Your task to perform on an android device: open a new tab in the chrome app Image 0: 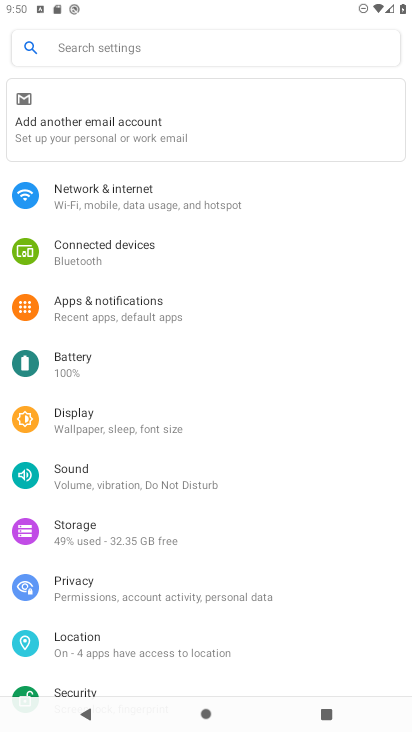
Step 0: press home button
Your task to perform on an android device: open a new tab in the chrome app Image 1: 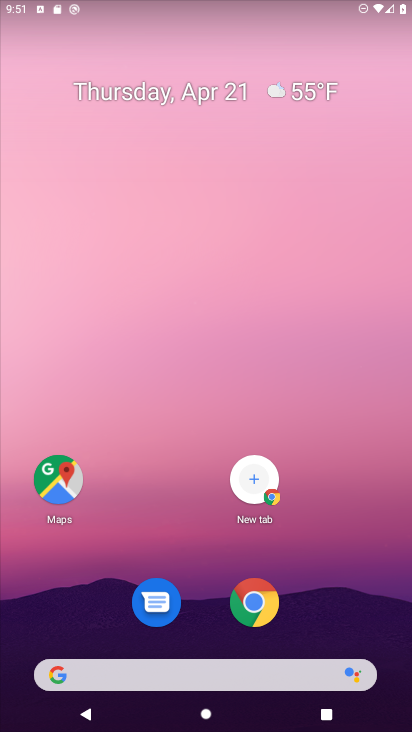
Step 1: click (248, 602)
Your task to perform on an android device: open a new tab in the chrome app Image 2: 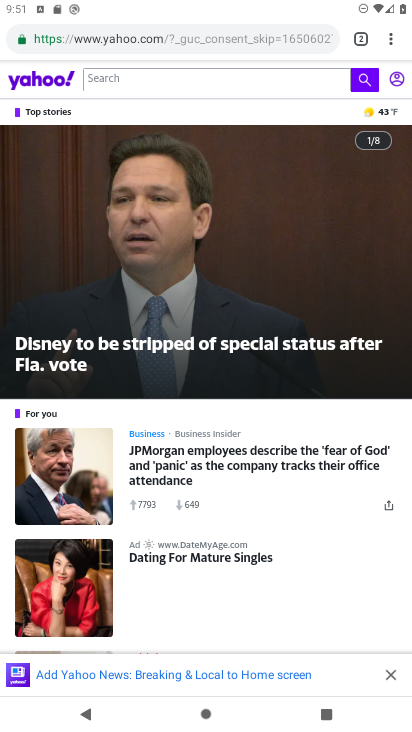
Step 2: click (391, 38)
Your task to perform on an android device: open a new tab in the chrome app Image 3: 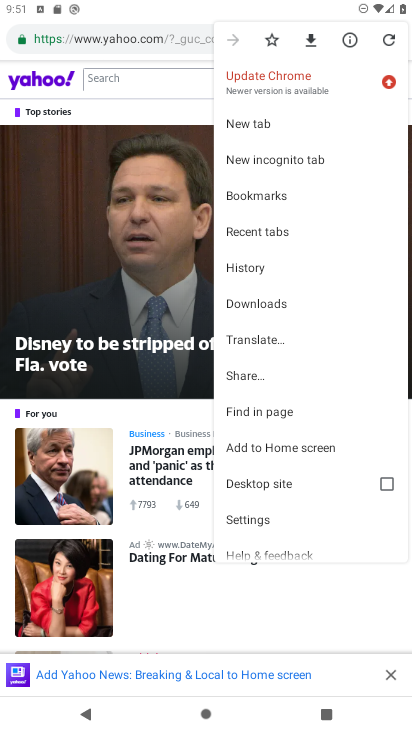
Step 3: click (254, 132)
Your task to perform on an android device: open a new tab in the chrome app Image 4: 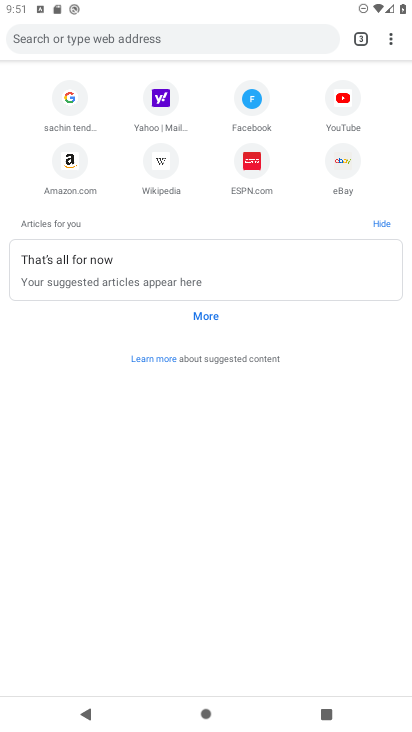
Step 4: click (249, 136)
Your task to perform on an android device: open a new tab in the chrome app Image 5: 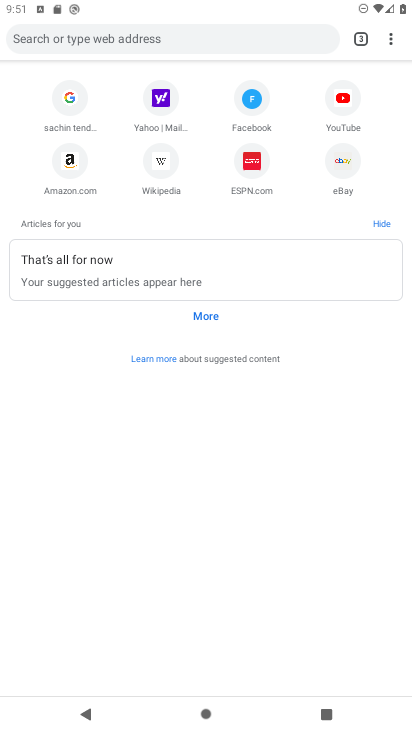
Step 5: task complete